Your task to perform on an android device: Go to privacy settings Image 0: 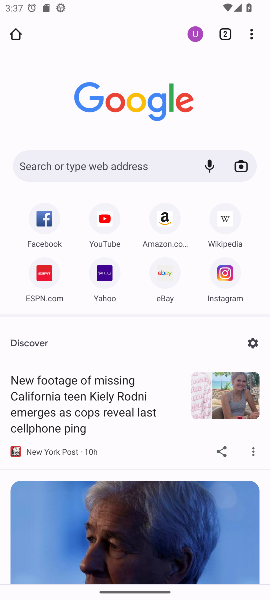
Step 0: press home button
Your task to perform on an android device: Go to privacy settings Image 1: 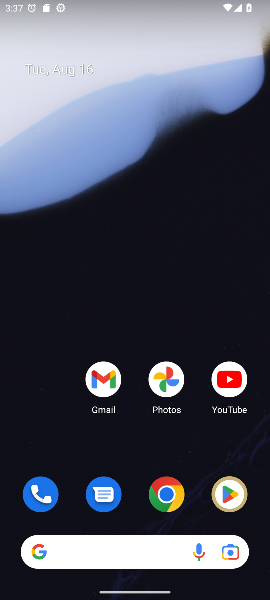
Step 1: drag from (93, 518) to (10, 4)
Your task to perform on an android device: Go to privacy settings Image 2: 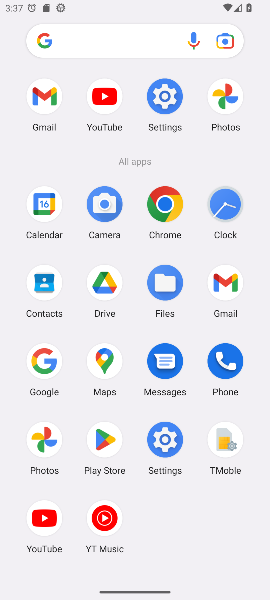
Step 2: click (175, 446)
Your task to perform on an android device: Go to privacy settings Image 3: 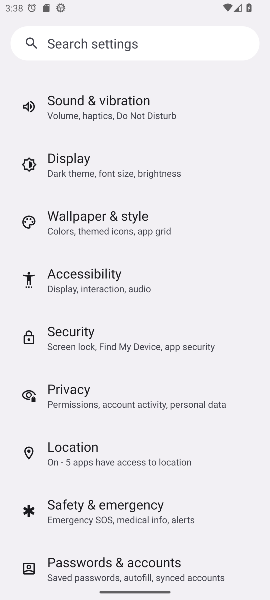
Step 3: click (82, 397)
Your task to perform on an android device: Go to privacy settings Image 4: 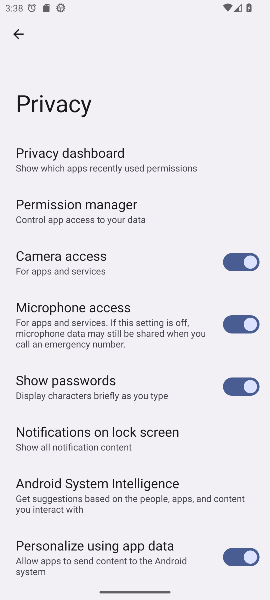
Step 4: task complete